Your task to perform on an android device: choose inbox layout in the gmail app Image 0: 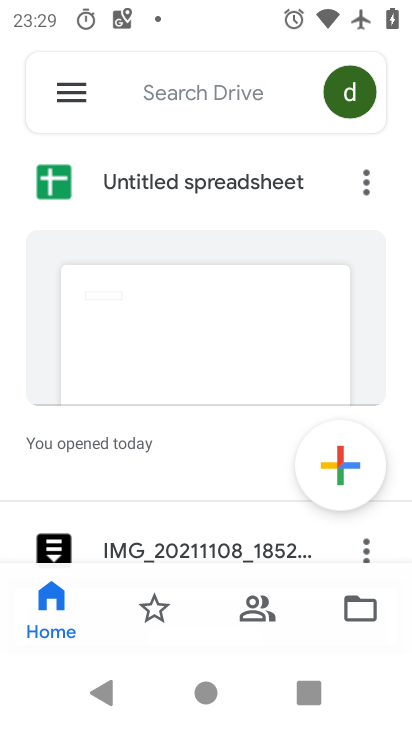
Step 0: drag from (191, 399) to (233, 3)
Your task to perform on an android device: choose inbox layout in the gmail app Image 1: 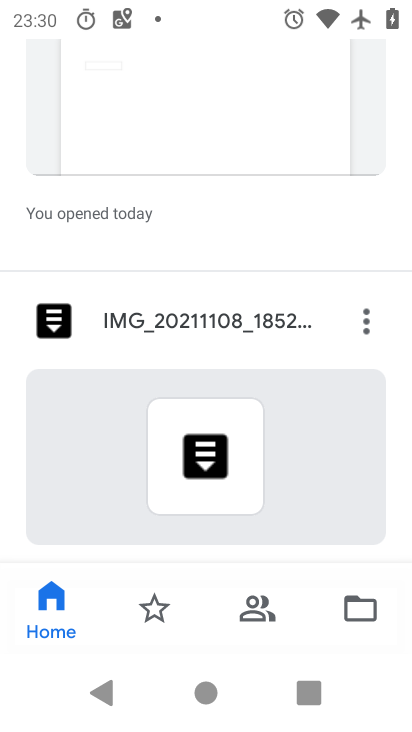
Step 1: press home button
Your task to perform on an android device: choose inbox layout in the gmail app Image 2: 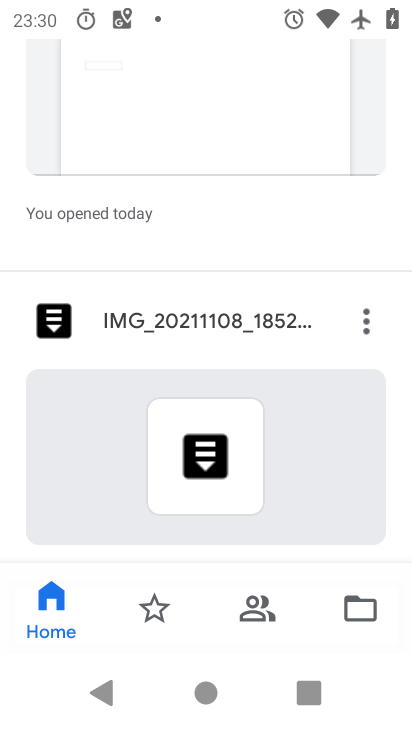
Step 2: press home button
Your task to perform on an android device: choose inbox layout in the gmail app Image 3: 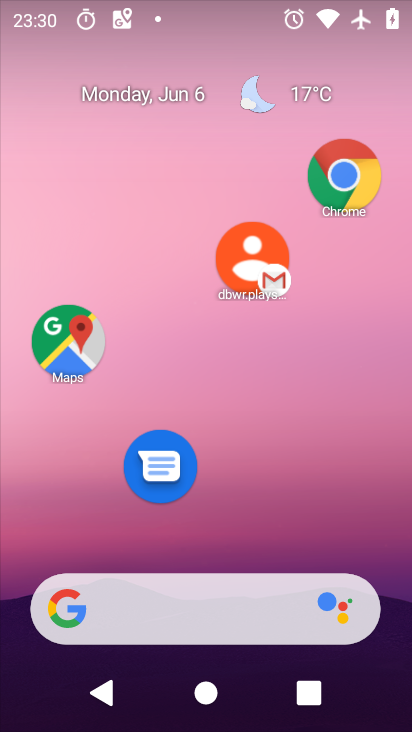
Step 3: drag from (205, 499) to (277, 187)
Your task to perform on an android device: choose inbox layout in the gmail app Image 4: 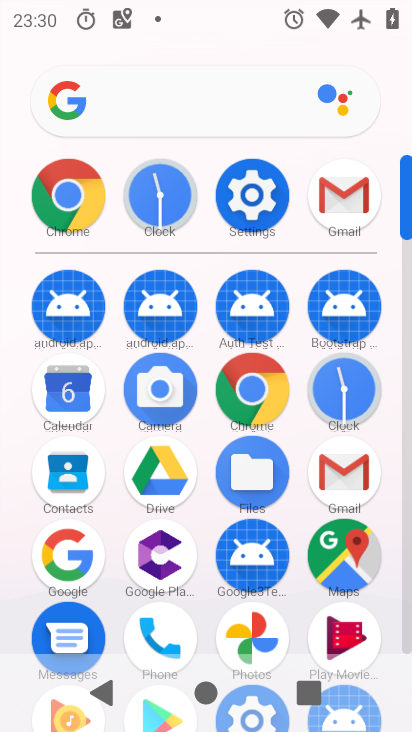
Step 4: click (348, 454)
Your task to perform on an android device: choose inbox layout in the gmail app Image 5: 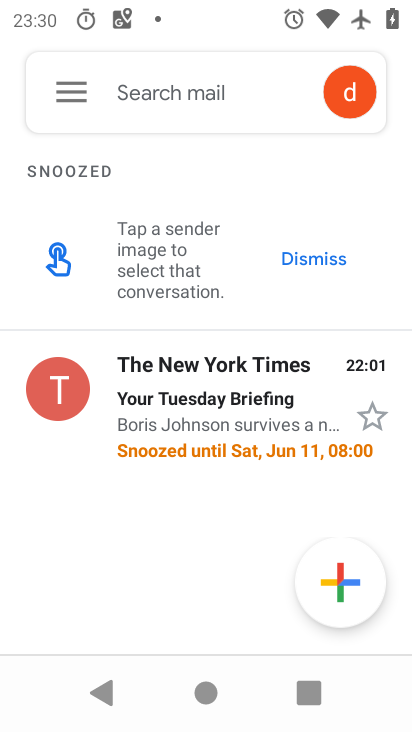
Step 5: click (77, 109)
Your task to perform on an android device: choose inbox layout in the gmail app Image 6: 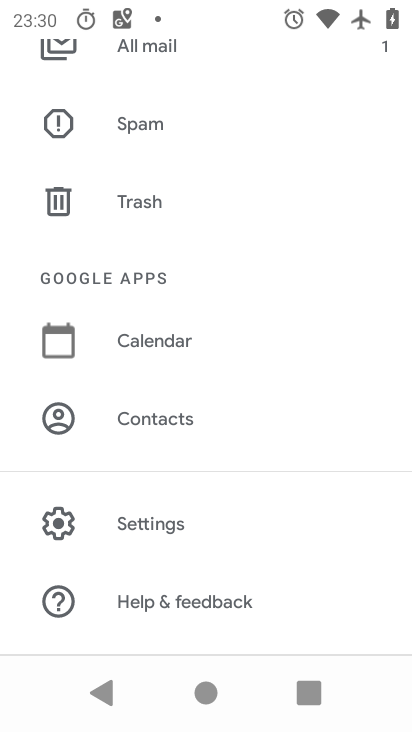
Step 6: drag from (158, 183) to (249, 723)
Your task to perform on an android device: choose inbox layout in the gmail app Image 7: 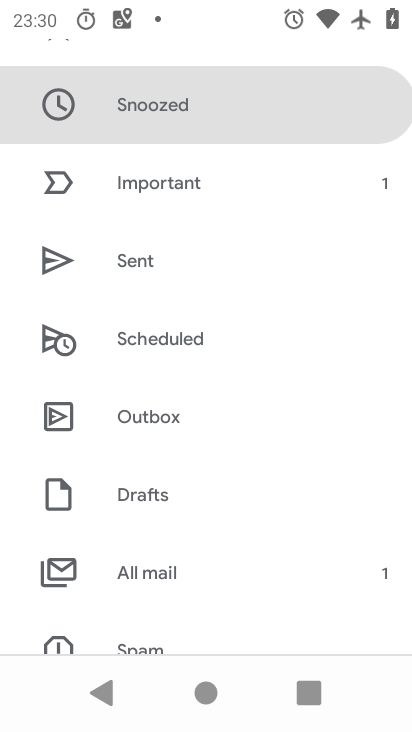
Step 7: drag from (266, 215) to (310, 633)
Your task to perform on an android device: choose inbox layout in the gmail app Image 8: 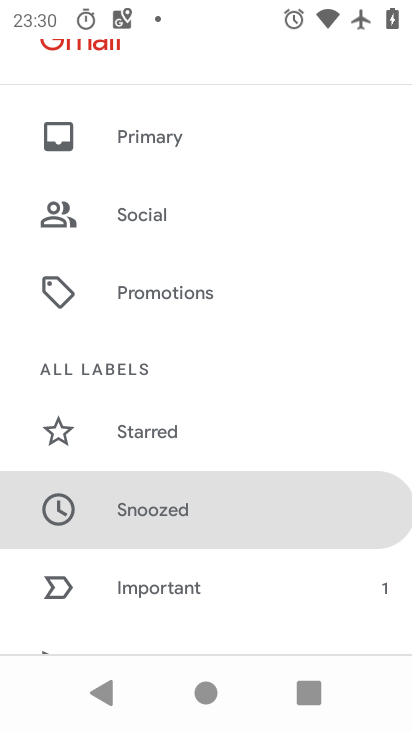
Step 8: click (222, 122)
Your task to perform on an android device: choose inbox layout in the gmail app Image 9: 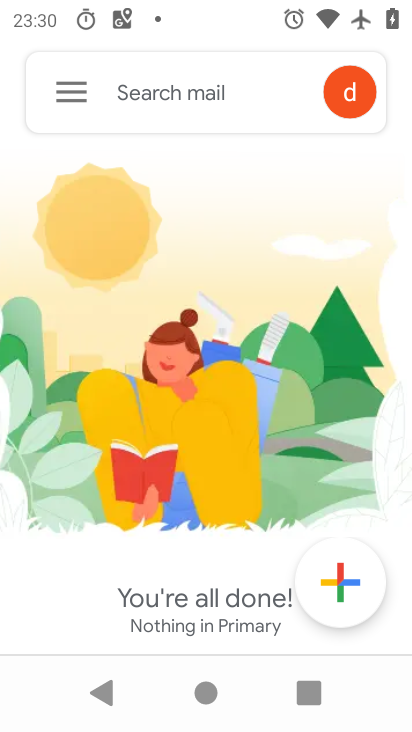
Step 9: task complete